Your task to perform on an android device: toggle data saver in the chrome app Image 0: 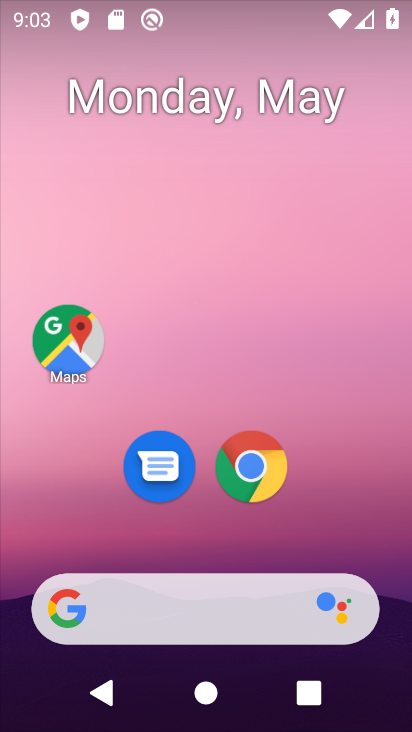
Step 0: click (249, 478)
Your task to perform on an android device: toggle data saver in the chrome app Image 1: 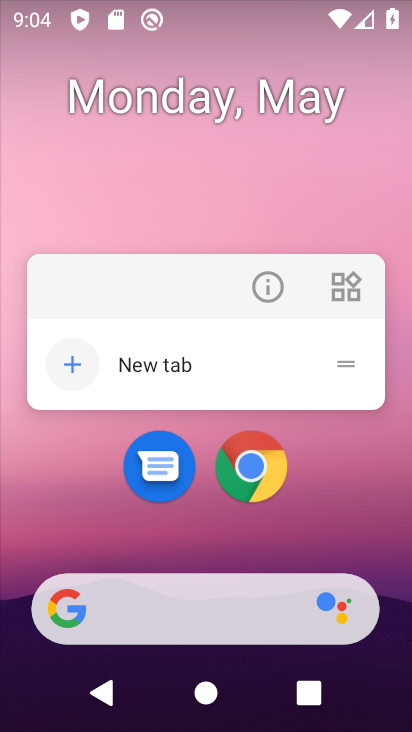
Step 1: click (261, 479)
Your task to perform on an android device: toggle data saver in the chrome app Image 2: 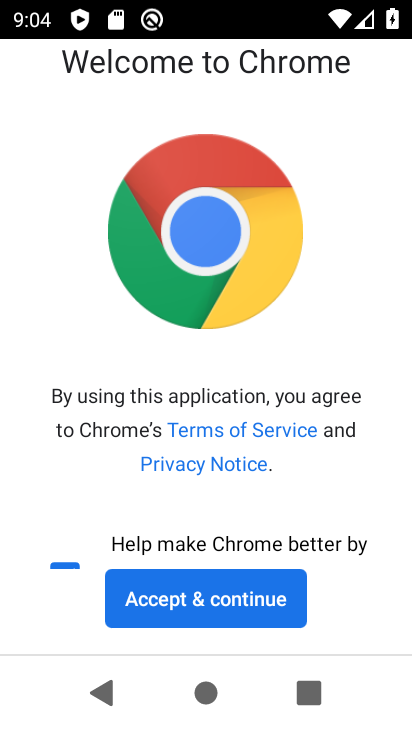
Step 2: click (209, 586)
Your task to perform on an android device: toggle data saver in the chrome app Image 3: 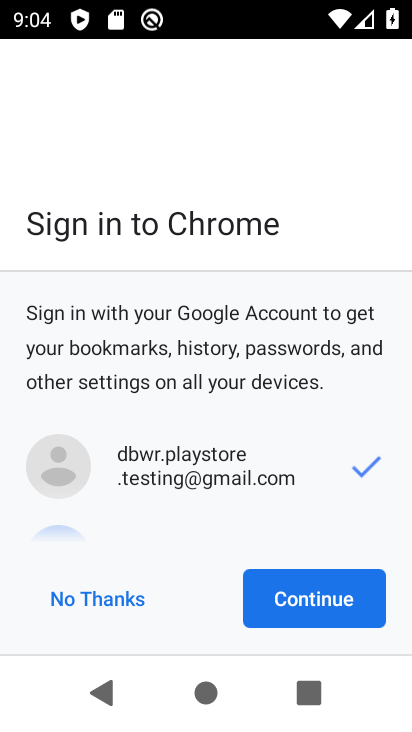
Step 3: click (321, 579)
Your task to perform on an android device: toggle data saver in the chrome app Image 4: 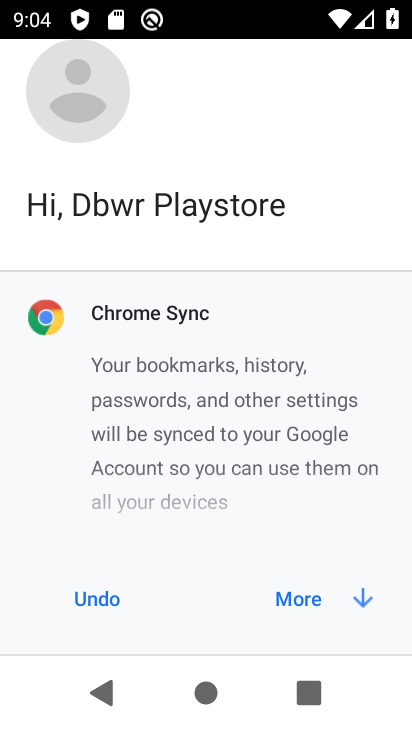
Step 4: click (339, 597)
Your task to perform on an android device: toggle data saver in the chrome app Image 5: 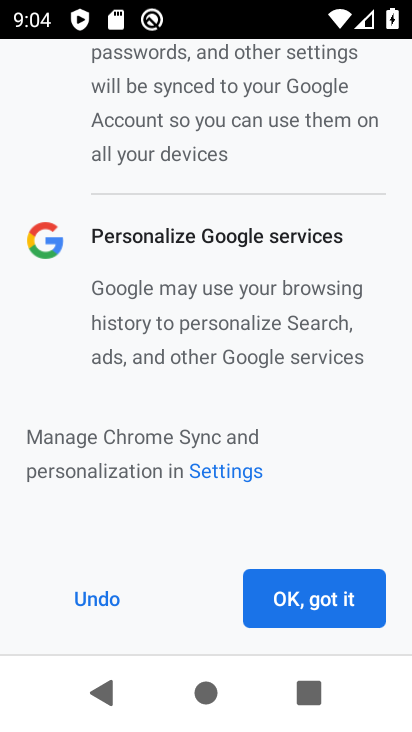
Step 5: click (339, 597)
Your task to perform on an android device: toggle data saver in the chrome app Image 6: 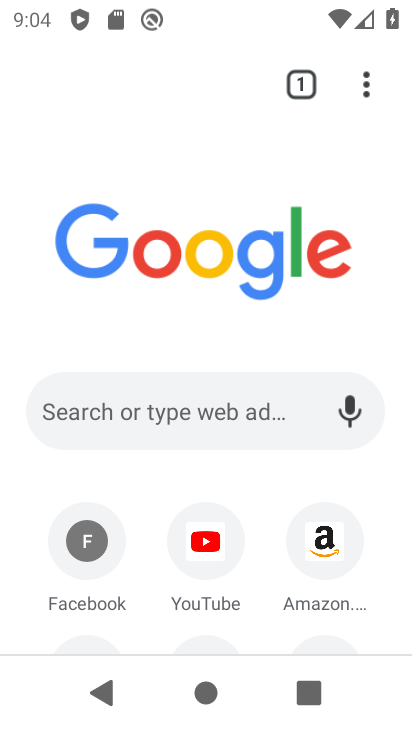
Step 6: drag from (364, 88) to (199, 513)
Your task to perform on an android device: toggle data saver in the chrome app Image 7: 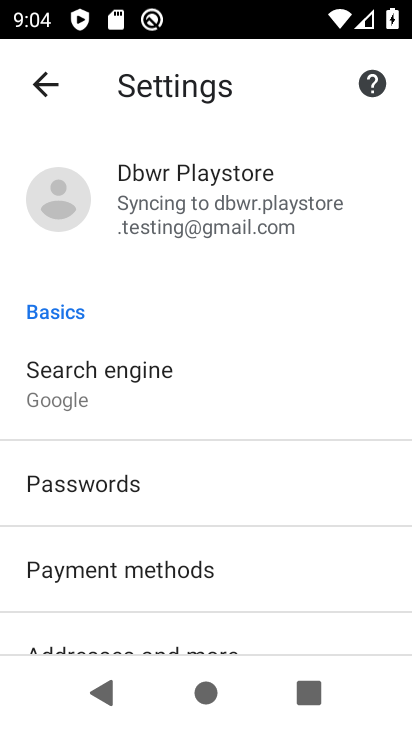
Step 7: drag from (259, 575) to (312, 196)
Your task to perform on an android device: toggle data saver in the chrome app Image 8: 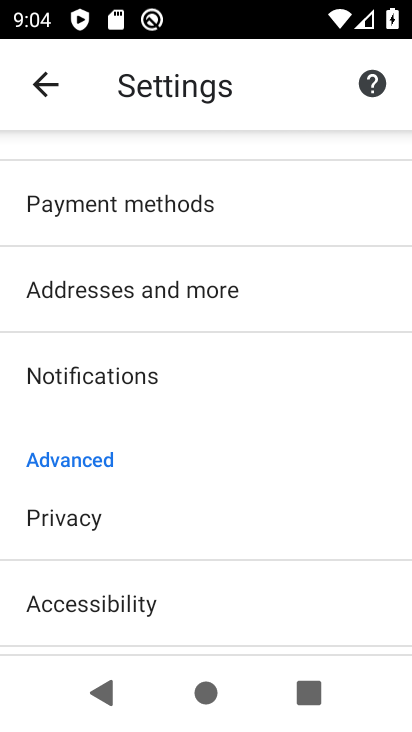
Step 8: drag from (219, 580) to (238, 337)
Your task to perform on an android device: toggle data saver in the chrome app Image 9: 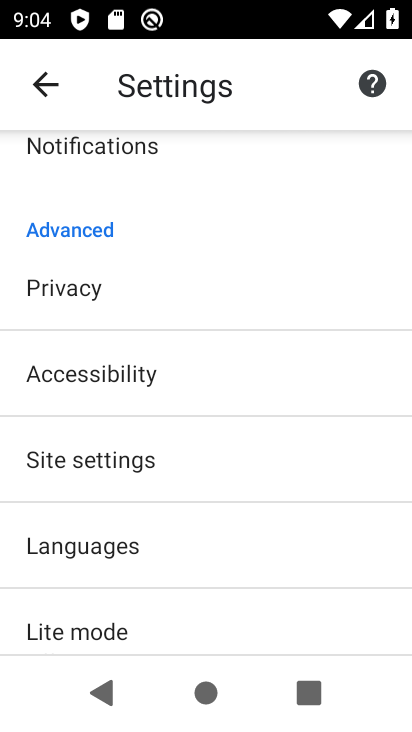
Step 9: click (92, 628)
Your task to perform on an android device: toggle data saver in the chrome app Image 10: 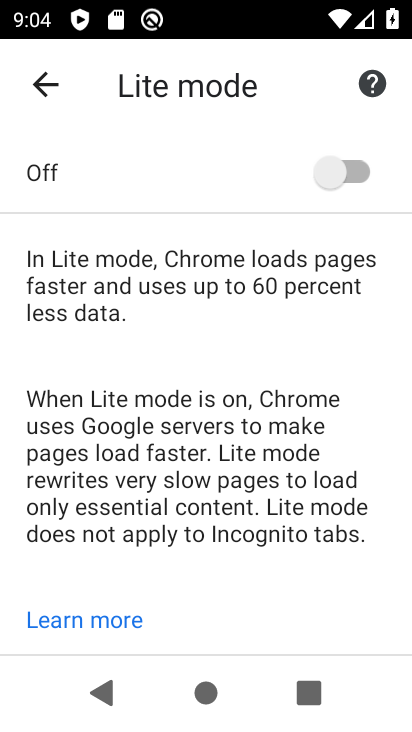
Step 10: click (353, 158)
Your task to perform on an android device: toggle data saver in the chrome app Image 11: 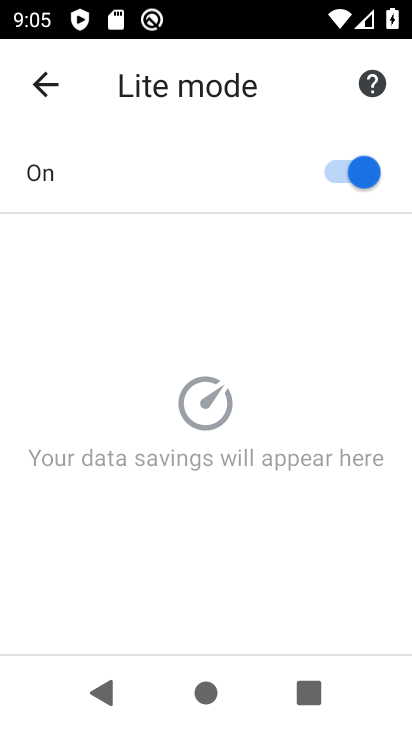
Step 11: task complete